Your task to perform on an android device: Open Maps and search for coffee Image 0: 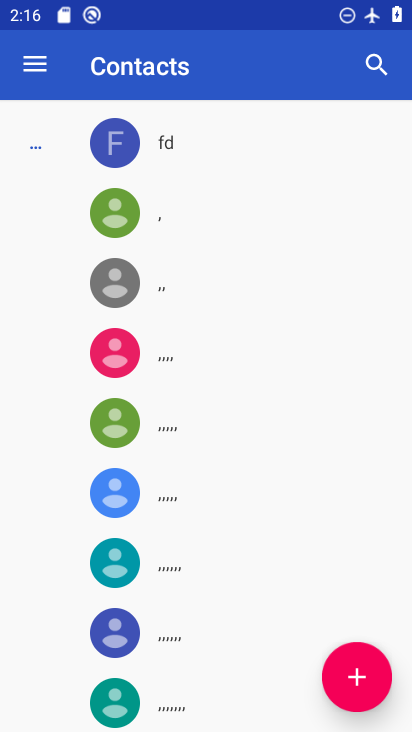
Step 0: press home button
Your task to perform on an android device: Open Maps and search for coffee Image 1: 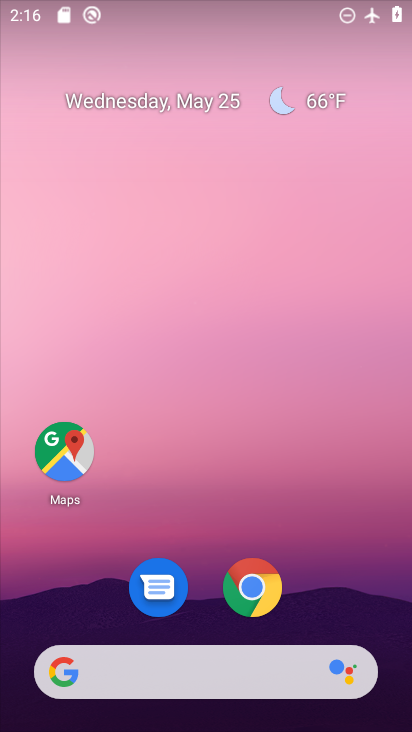
Step 1: drag from (370, 607) to (367, 123)
Your task to perform on an android device: Open Maps and search for coffee Image 2: 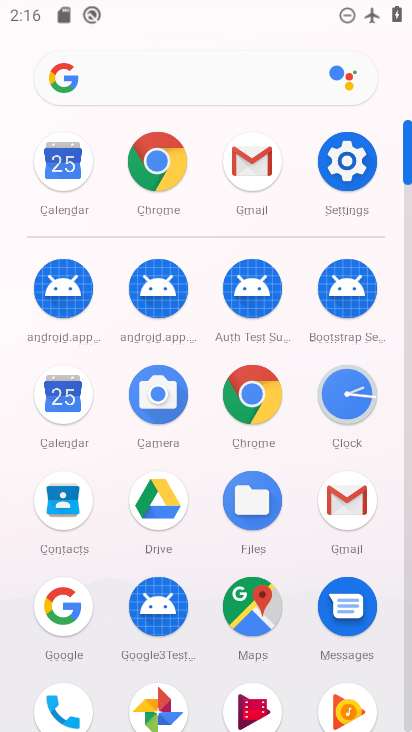
Step 2: click (259, 616)
Your task to perform on an android device: Open Maps and search for coffee Image 3: 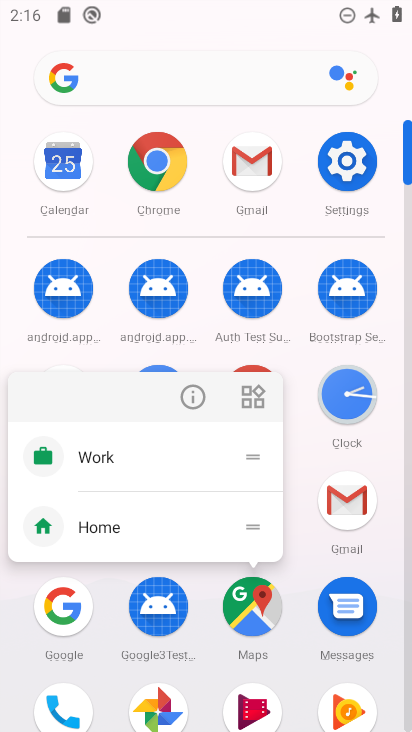
Step 3: click (259, 616)
Your task to perform on an android device: Open Maps and search for coffee Image 4: 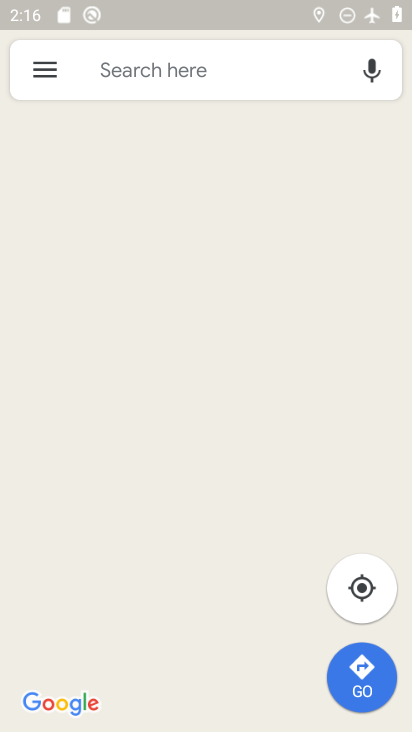
Step 4: click (184, 63)
Your task to perform on an android device: Open Maps and search for coffee Image 5: 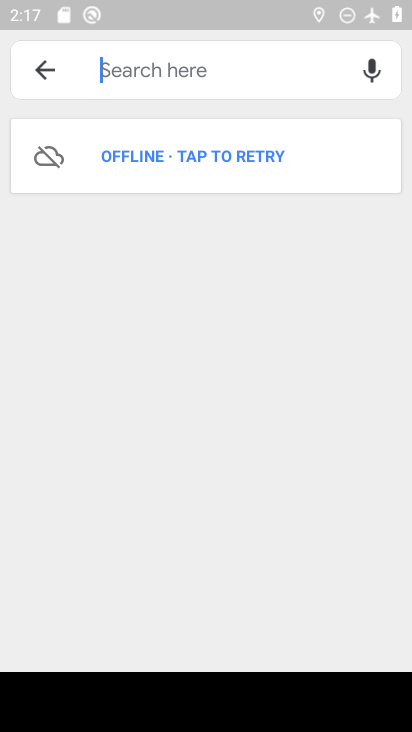
Step 5: type "coffee"
Your task to perform on an android device: Open Maps and search for coffee Image 6: 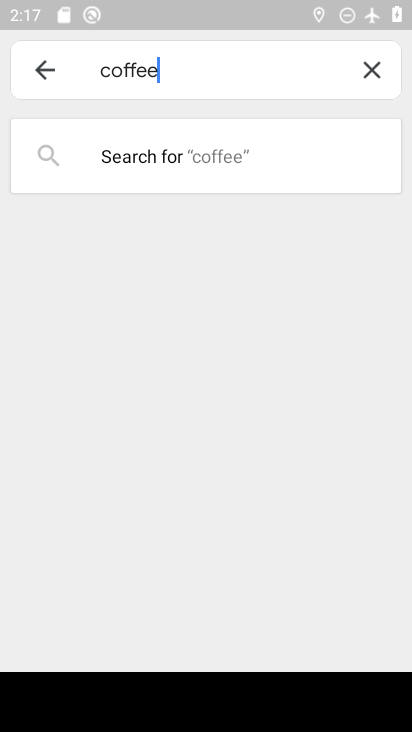
Step 6: task complete